Your task to perform on an android device: turn off wifi Image 0: 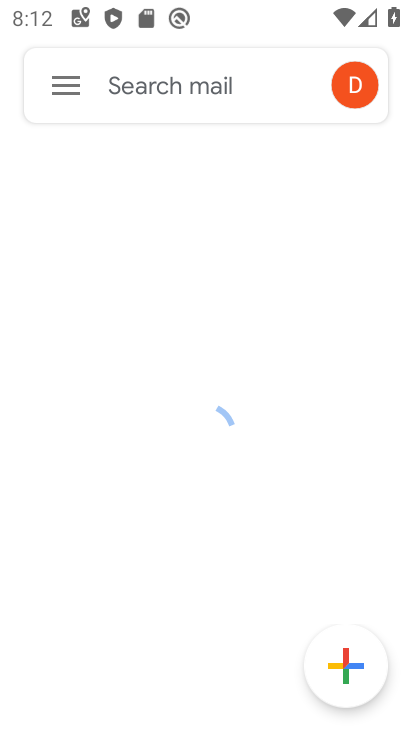
Step 0: press home button
Your task to perform on an android device: turn off wifi Image 1: 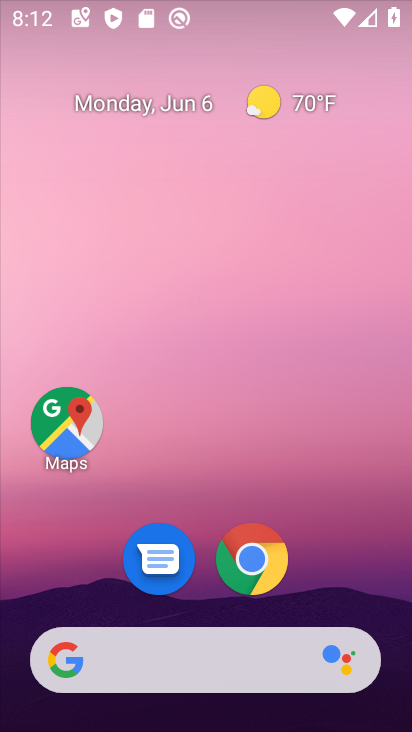
Step 1: drag from (191, 725) to (205, 193)
Your task to perform on an android device: turn off wifi Image 2: 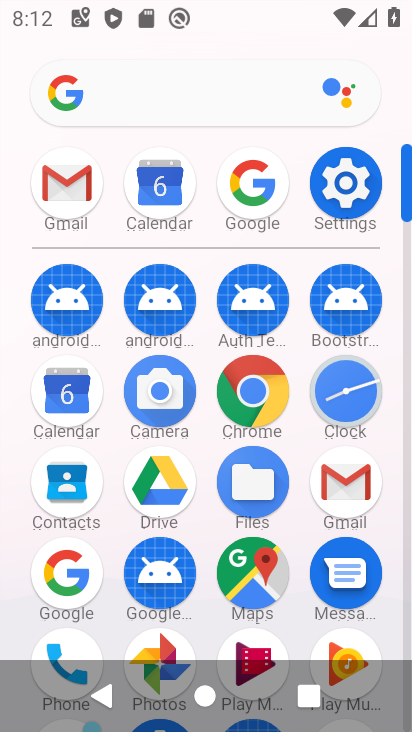
Step 2: click (356, 190)
Your task to perform on an android device: turn off wifi Image 3: 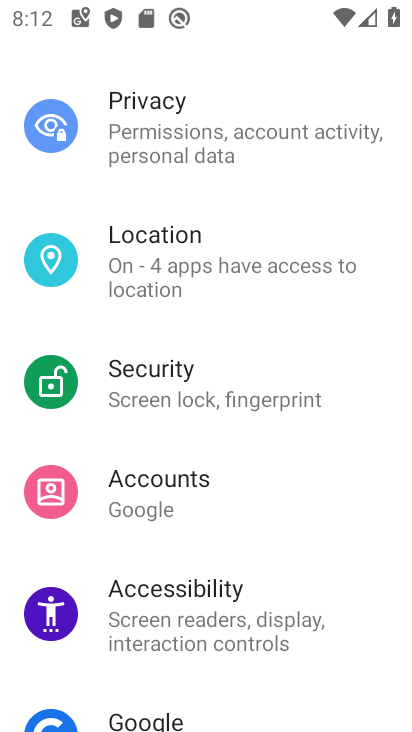
Step 3: drag from (244, 111) to (248, 436)
Your task to perform on an android device: turn off wifi Image 4: 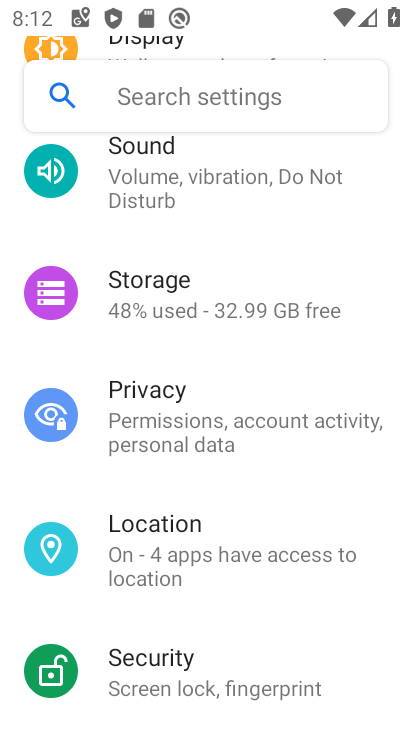
Step 4: drag from (241, 151) to (250, 576)
Your task to perform on an android device: turn off wifi Image 5: 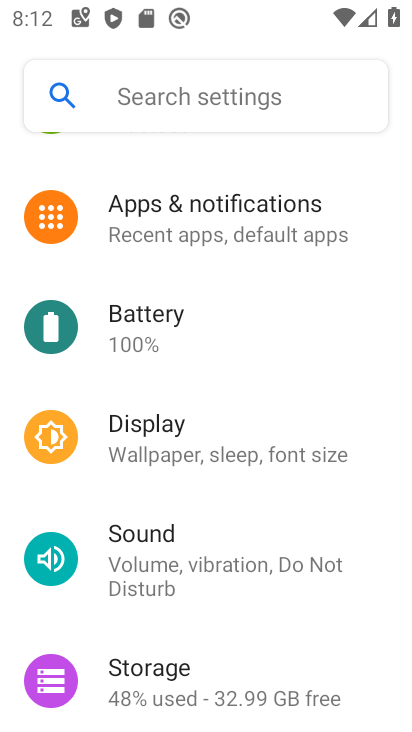
Step 5: drag from (253, 177) to (281, 559)
Your task to perform on an android device: turn off wifi Image 6: 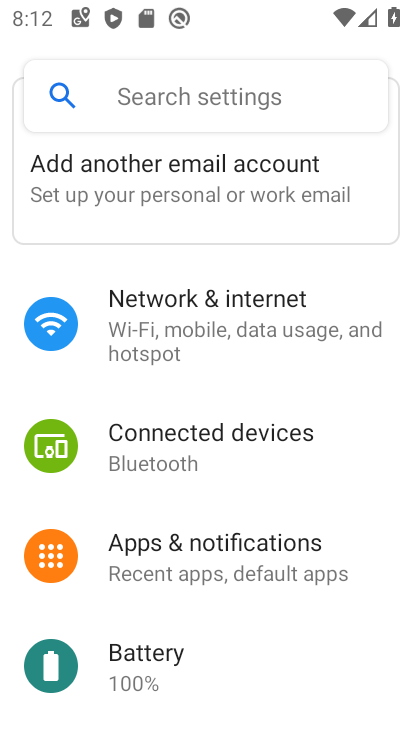
Step 6: click (191, 317)
Your task to perform on an android device: turn off wifi Image 7: 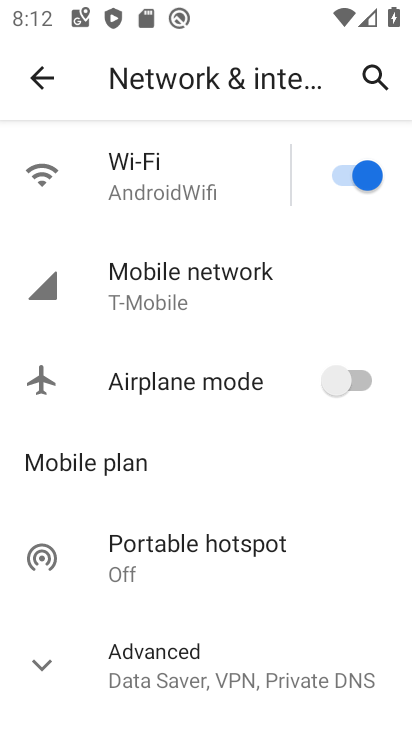
Step 7: click (333, 174)
Your task to perform on an android device: turn off wifi Image 8: 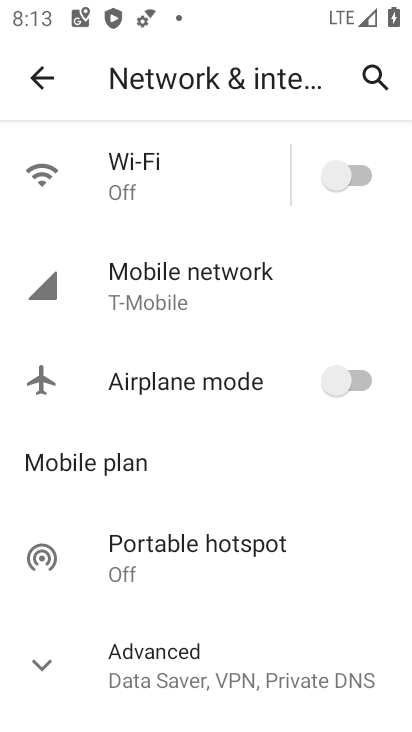
Step 8: task complete